Your task to perform on an android device: turn on location history Image 0: 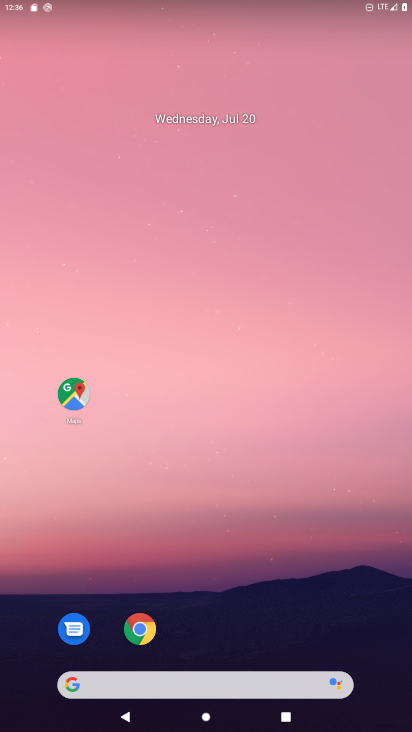
Step 0: drag from (196, 612) to (202, 41)
Your task to perform on an android device: turn on location history Image 1: 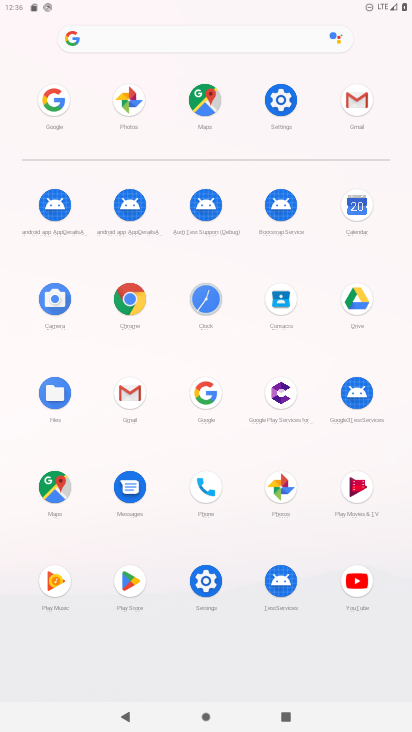
Step 1: click (279, 96)
Your task to perform on an android device: turn on location history Image 2: 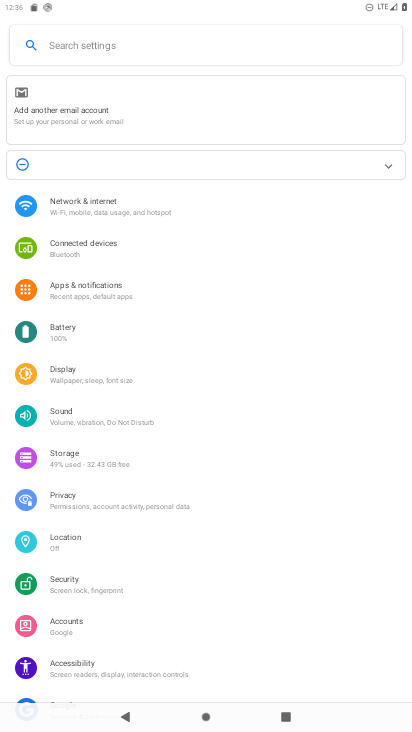
Step 2: click (61, 537)
Your task to perform on an android device: turn on location history Image 3: 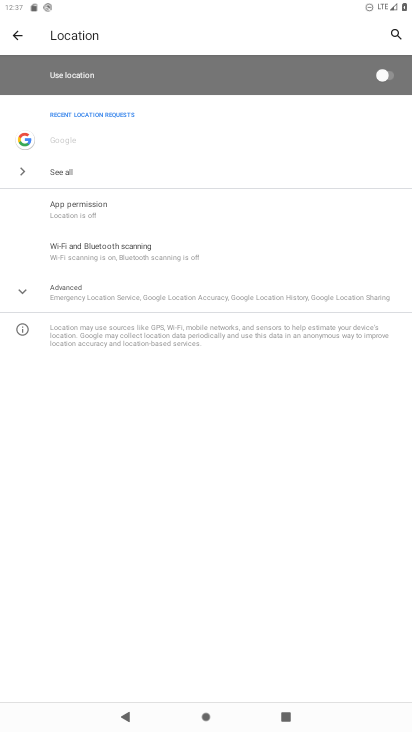
Step 3: click (61, 295)
Your task to perform on an android device: turn on location history Image 4: 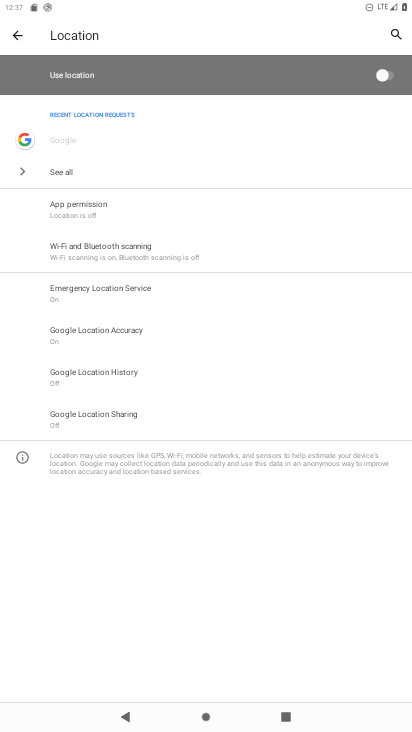
Step 4: click (108, 374)
Your task to perform on an android device: turn on location history Image 5: 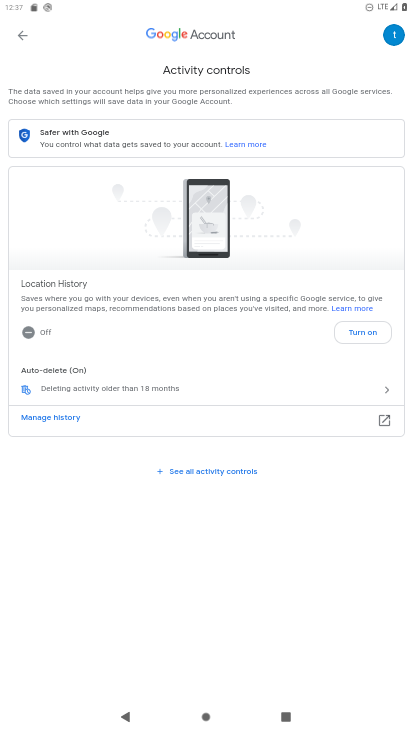
Step 5: click (347, 331)
Your task to perform on an android device: turn on location history Image 6: 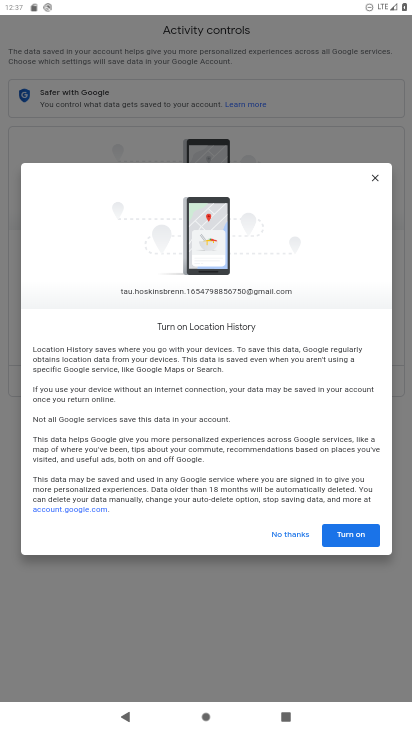
Step 6: click (339, 529)
Your task to perform on an android device: turn on location history Image 7: 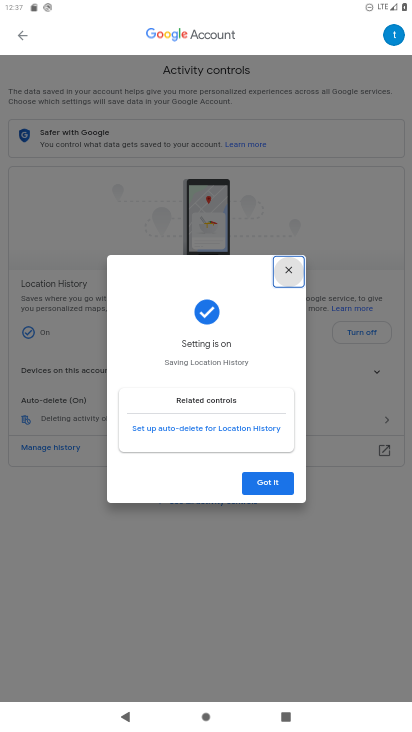
Step 7: click (266, 477)
Your task to perform on an android device: turn on location history Image 8: 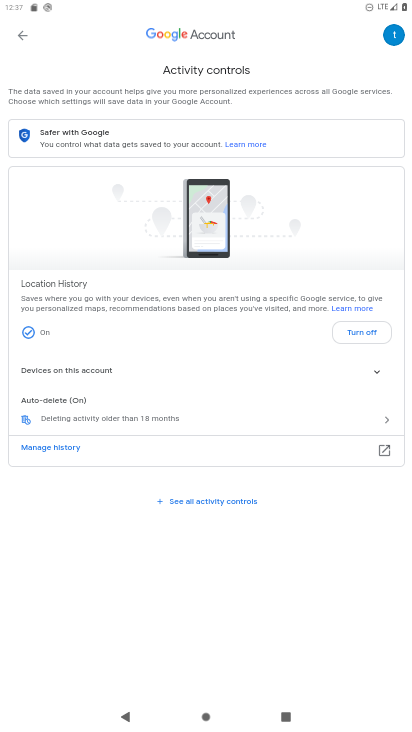
Step 8: task complete